Your task to perform on an android device: open wifi settings Image 0: 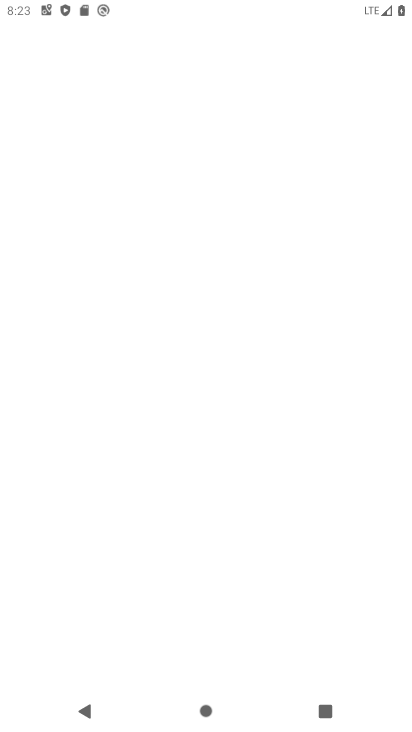
Step 0: press home button
Your task to perform on an android device: open wifi settings Image 1: 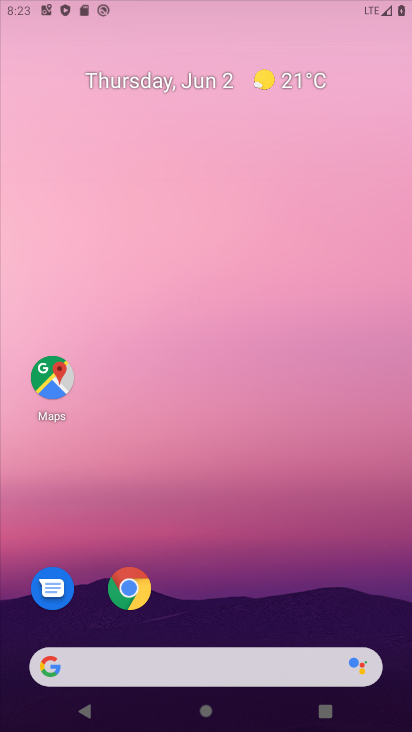
Step 1: drag from (239, 445) to (251, 256)
Your task to perform on an android device: open wifi settings Image 2: 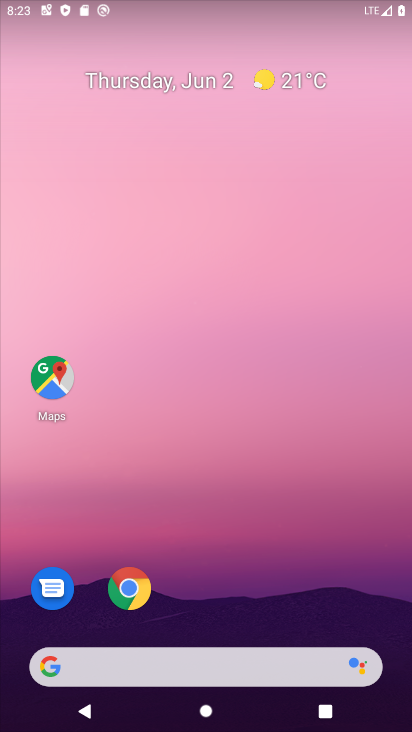
Step 2: drag from (227, 571) to (280, 180)
Your task to perform on an android device: open wifi settings Image 3: 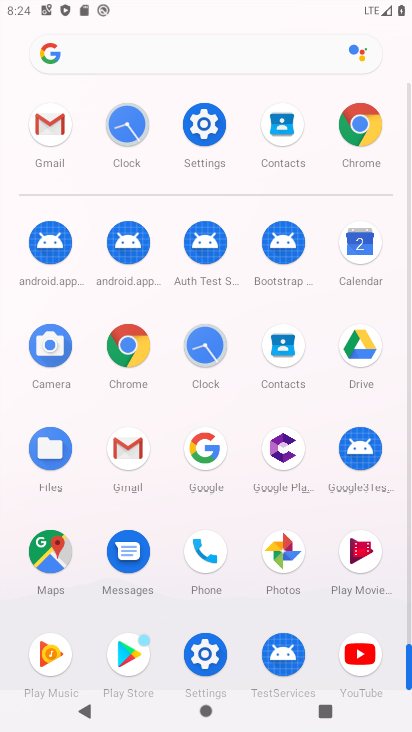
Step 3: click (209, 132)
Your task to perform on an android device: open wifi settings Image 4: 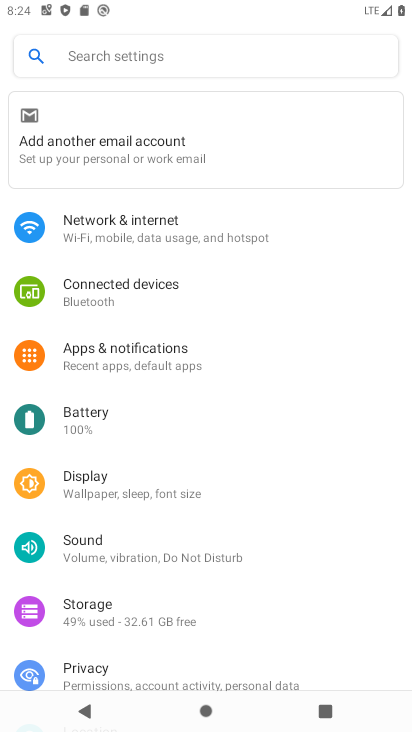
Step 4: click (164, 228)
Your task to perform on an android device: open wifi settings Image 5: 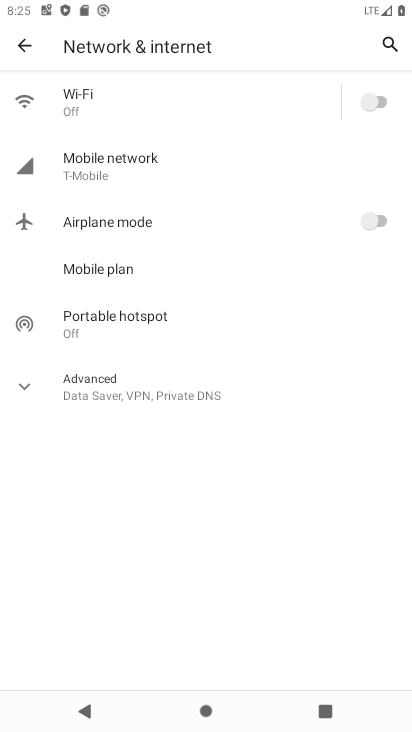
Step 5: click (222, 106)
Your task to perform on an android device: open wifi settings Image 6: 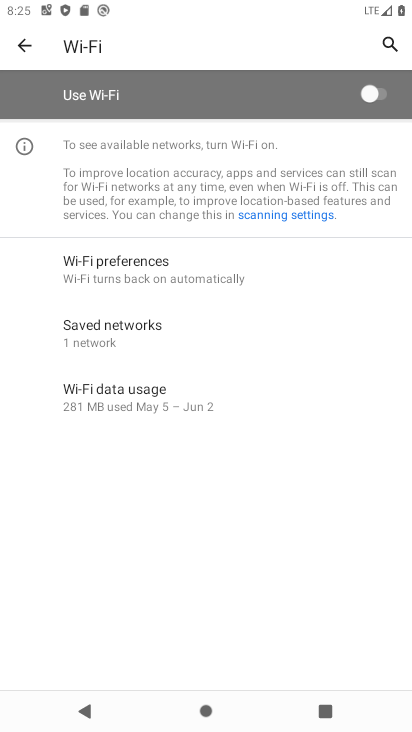
Step 6: task complete